Your task to perform on an android device: turn on the 24-hour format for clock Image 0: 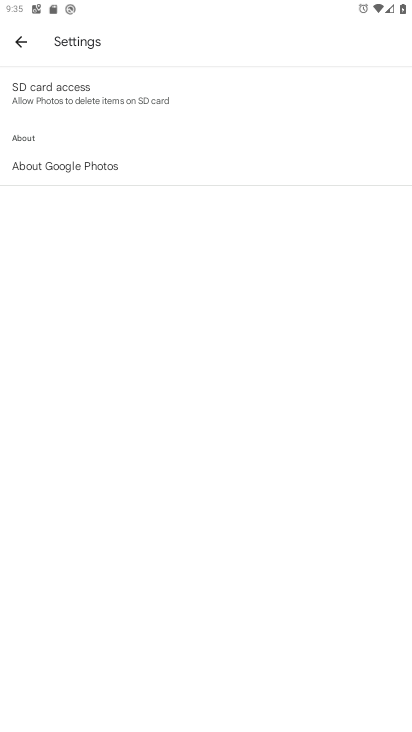
Step 0: press home button
Your task to perform on an android device: turn on the 24-hour format for clock Image 1: 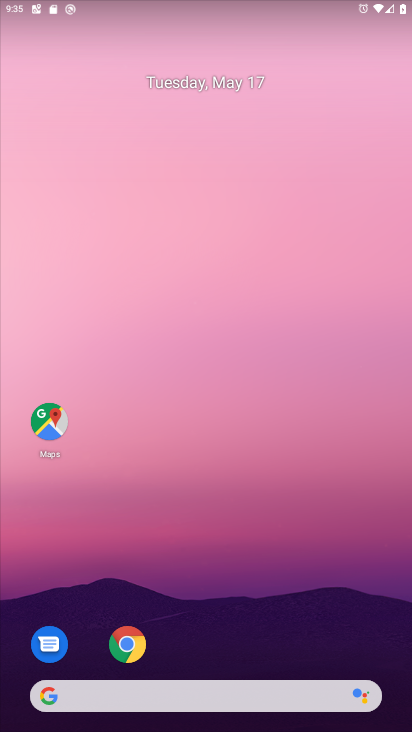
Step 1: drag from (225, 650) to (211, 7)
Your task to perform on an android device: turn on the 24-hour format for clock Image 2: 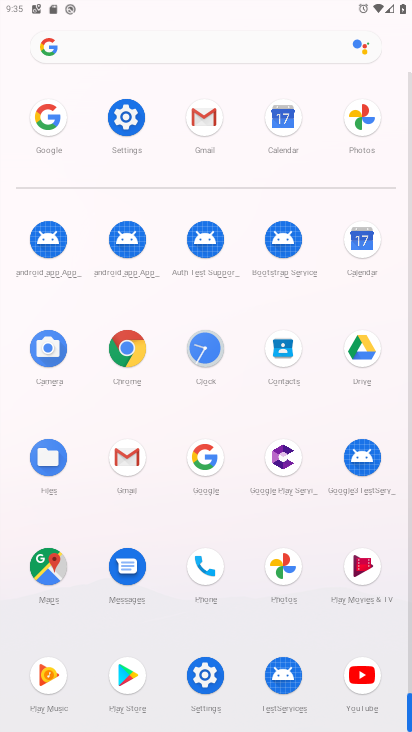
Step 2: click (204, 337)
Your task to perform on an android device: turn on the 24-hour format for clock Image 3: 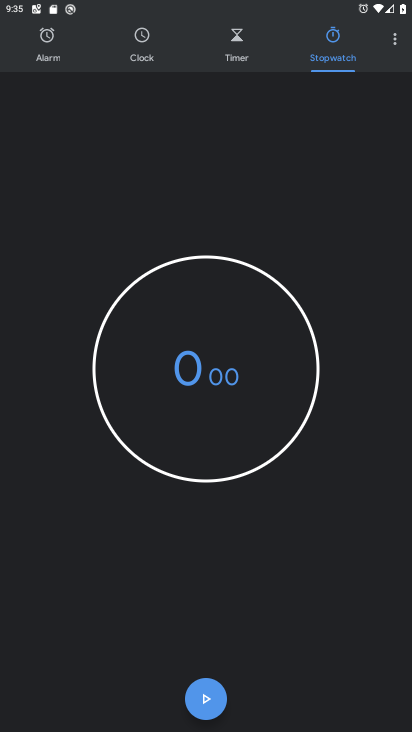
Step 3: click (388, 43)
Your task to perform on an android device: turn on the 24-hour format for clock Image 4: 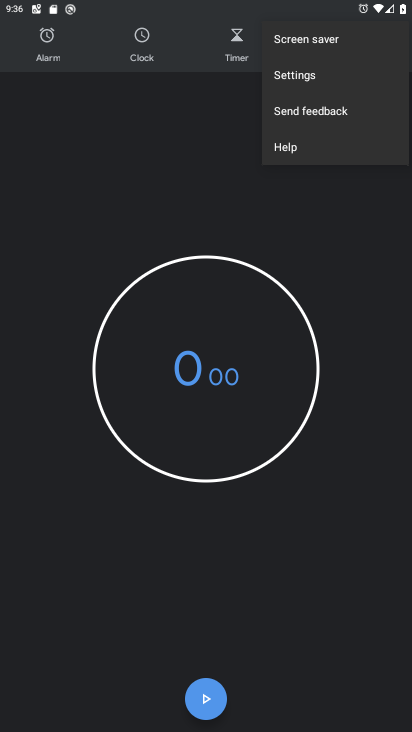
Step 4: click (328, 67)
Your task to perform on an android device: turn on the 24-hour format for clock Image 5: 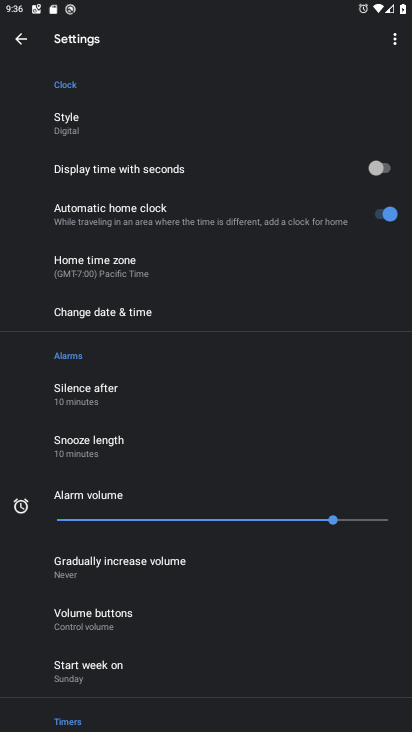
Step 5: click (157, 303)
Your task to perform on an android device: turn on the 24-hour format for clock Image 6: 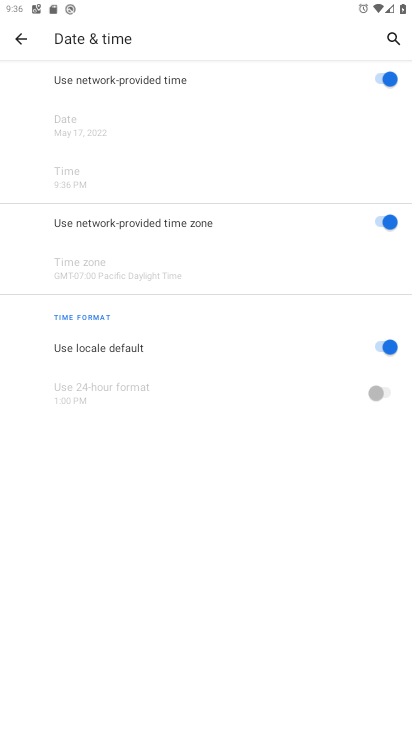
Step 6: click (381, 342)
Your task to perform on an android device: turn on the 24-hour format for clock Image 7: 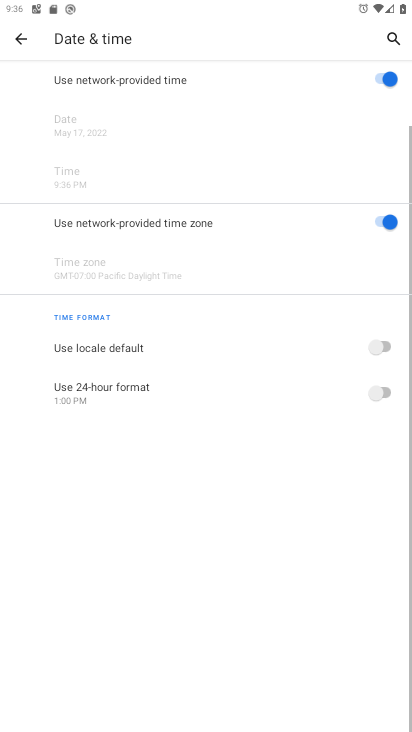
Step 7: click (380, 395)
Your task to perform on an android device: turn on the 24-hour format for clock Image 8: 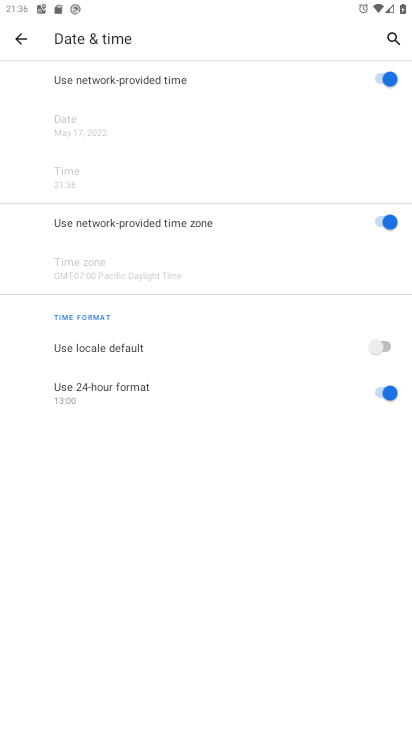
Step 8: task complete